Your task to perform on an android device: Turn off the flashlight Image 0: 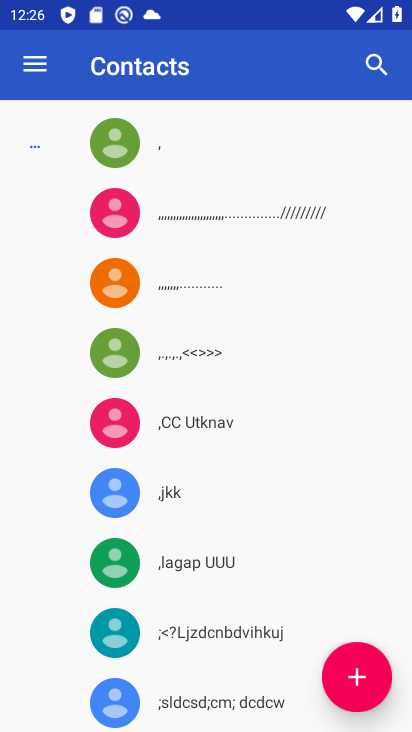
Step 0: press home button
Your task to perform on an android device: Turn off the flashlight Image 1: 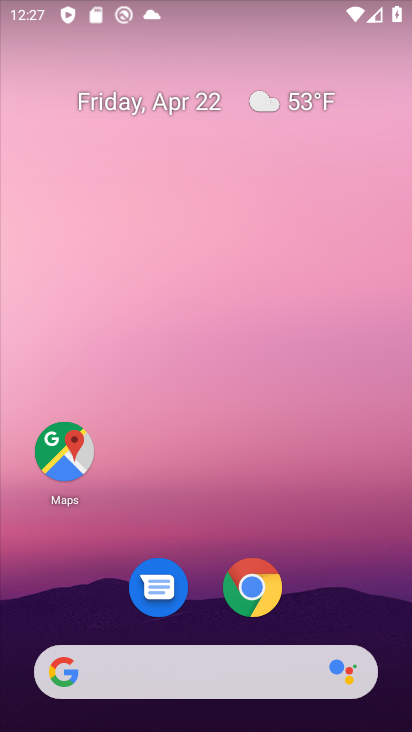
Step 1: task complete